Your task to perform on an android device: turn vacation reply on in the gmail app Image 0: 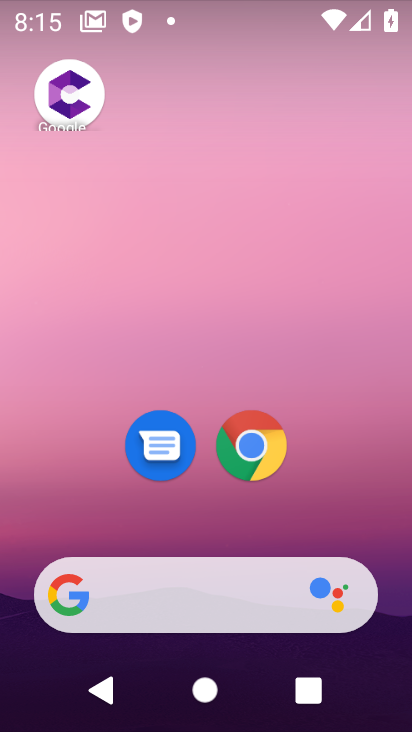
Step 0: drag from (20, 623) to (164, 196)
Your task to perform on an android device: turn vacation reply on in the gmail app Image 1: 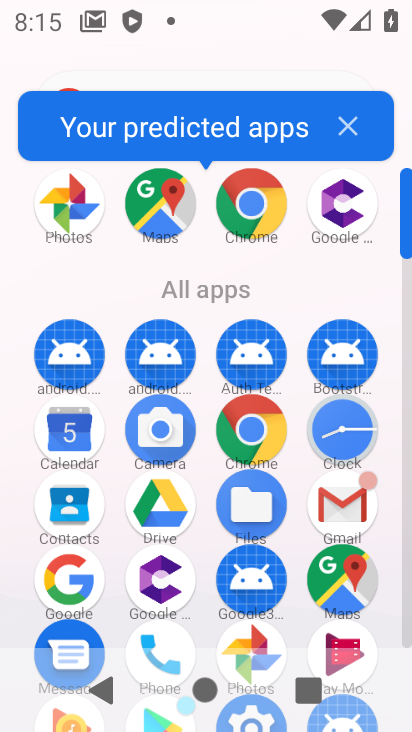
Step 1: click (340, 497)
Your task to perform on an android device: turn vacation reply on in the gmail app Image 2: 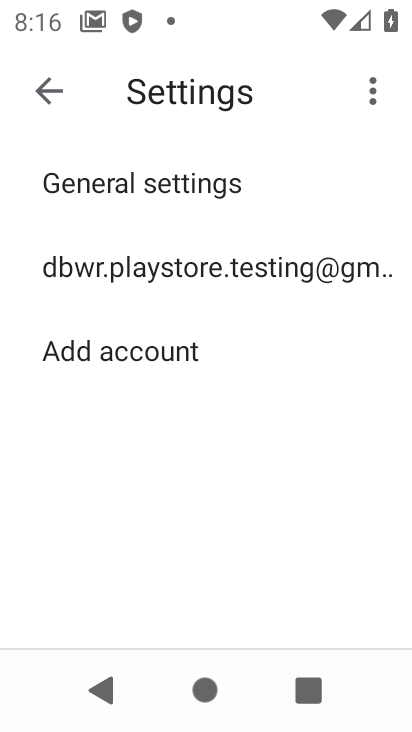
Step 2: click (317, 168)
Your task to perform on an android device: turn vacation reply on in the gmail app Image 3: 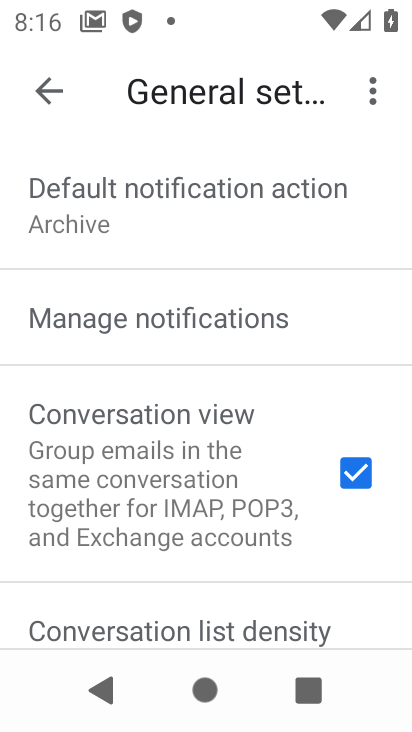
Step 3: press back button
Your task to perform on an android device: turn vacation reply on in the gmail app Image 4: 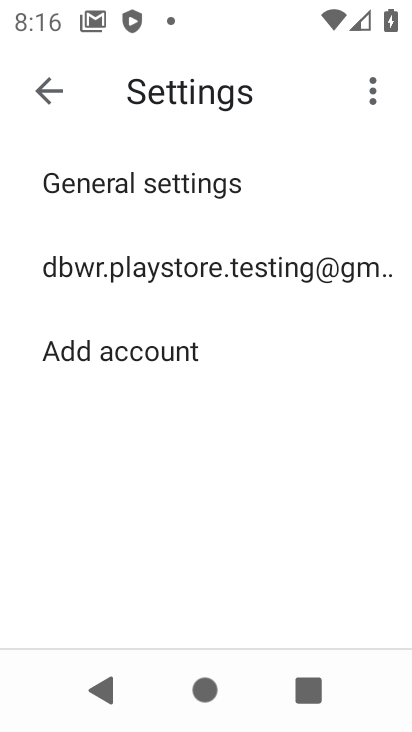
Step 4: click (125, 277)
Your task to perform on an android device: turn vacation reply on in the gmail app Image 5: 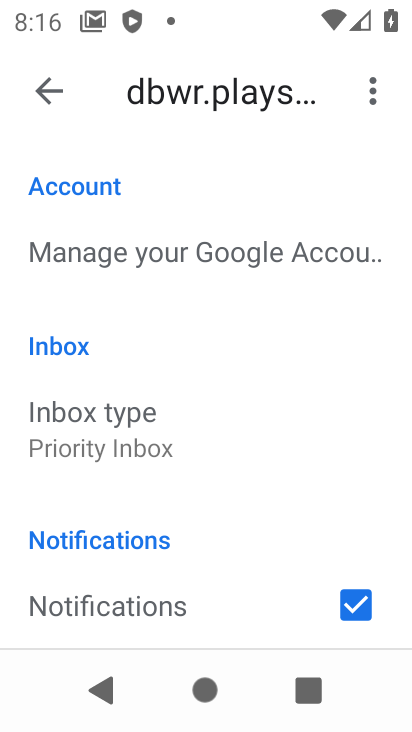
Step 5: drag from (197, 471) to (271, 181)
Your task to perform on an android device: turn vacation reply on in the gmail app Image 6: 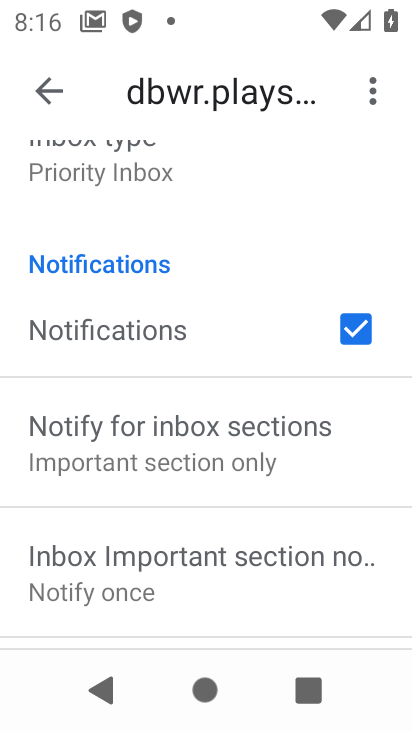
Step 6: drag from (181, 546) to (263, 171)
Your task to perform on an android device: turn vacation reply on in the gmail app Image 7: 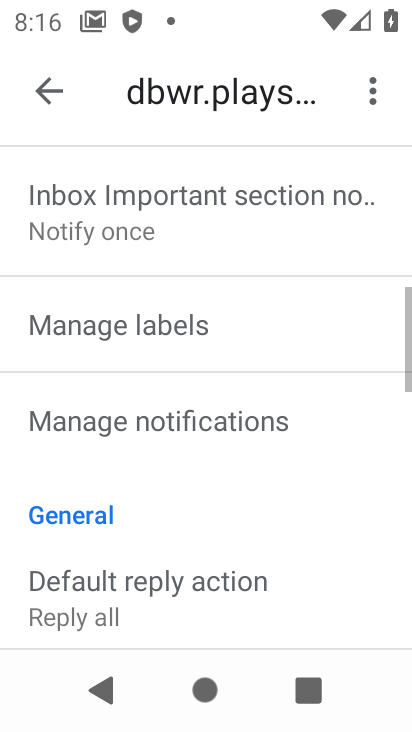
Step 7: drag from (199, 504) to (292, 223)
Your task to perform on an android device: turn vacation reply on in the gmail app Image 8: 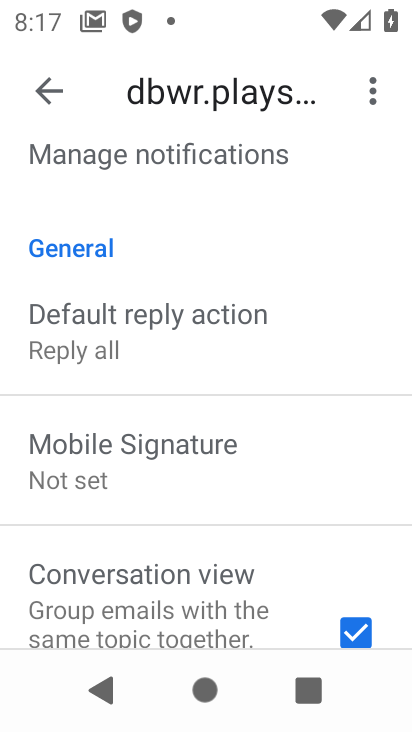
Step 8: drag from (146, 641) to (246, 278)
Your task to perform on an android device: turn vacation reply on in the gmail app Image 9: 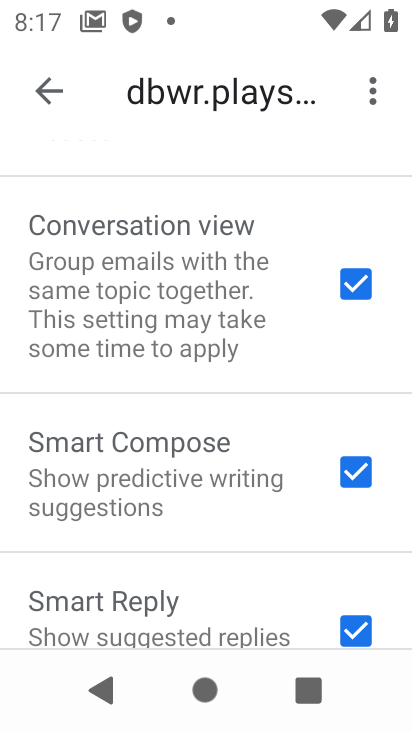
Step 9: drag from (137, 561) to (234, 318)
Your task to perform on an android device: turn vacation reply on in the gmail app Image 10: 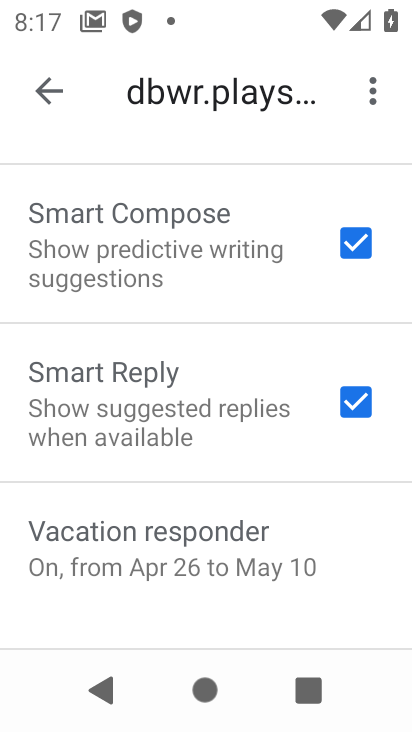
Step 10: click (149, 543)
Your task to perform on an android device: turn vacation reply on in the gmail app Image 11: 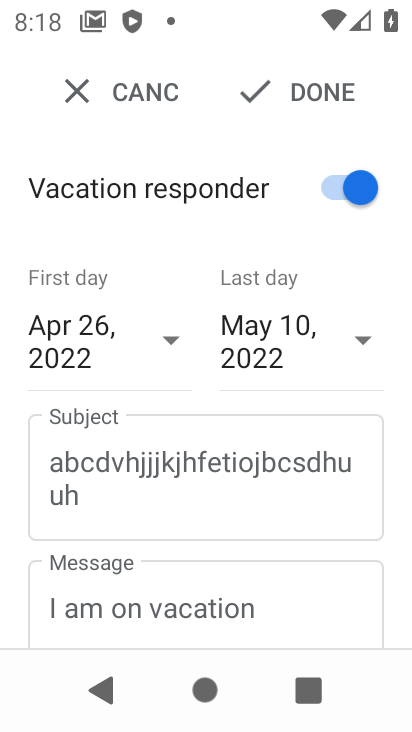
Step 11: drag from (28, 608) to (144, 217)
Your task to perform on an android device: turn vacation reply on in the gmail app Image 12: 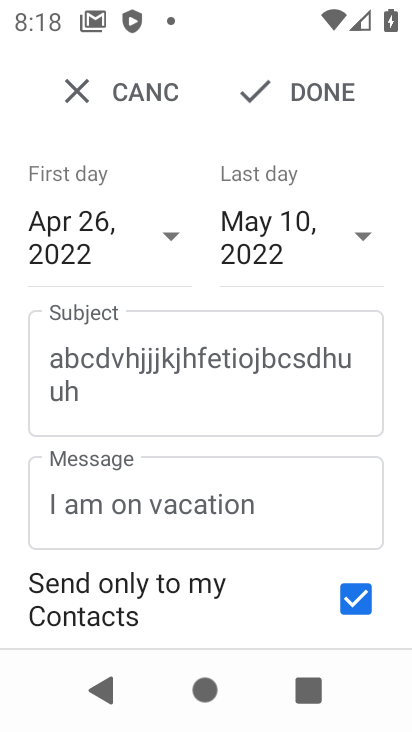
Step 12: click (301, 89)
Your task to perform on an android device: turn vacation reply on in the gmail app Image 13: 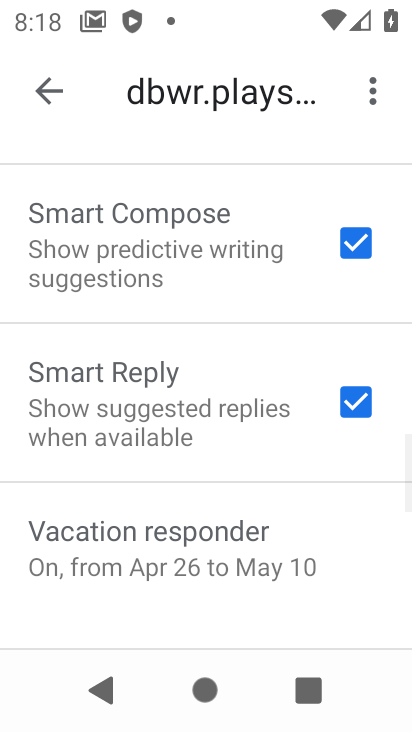
Step 13: task complete